Your task to perform on an android device: What's on my calendar tomorrow? Image 0: 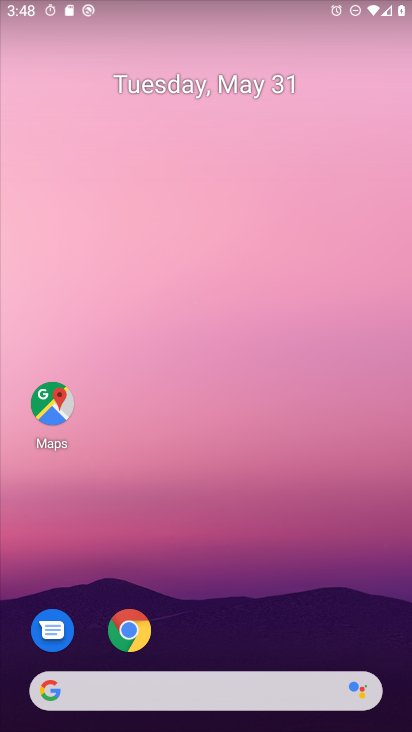
Step 0: drag from (283, 678) to (316, 1)
Your task to perform on an android device: What's on my calendar tomorrow? Image 1: 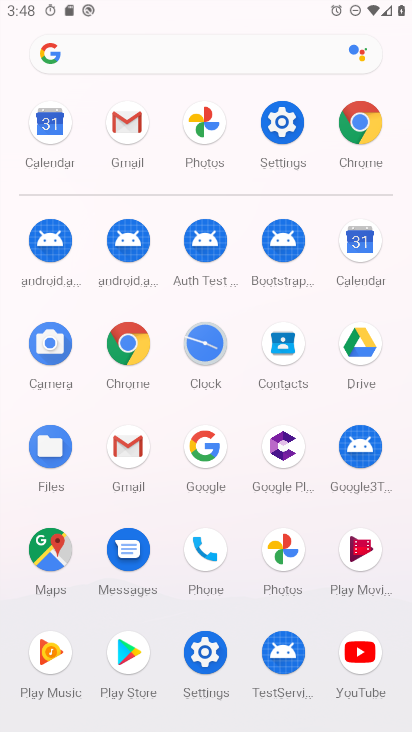
Step 1: click (363, 240)
Your task to perform on an android device: What's on my calendar tomorrow? Image 2: 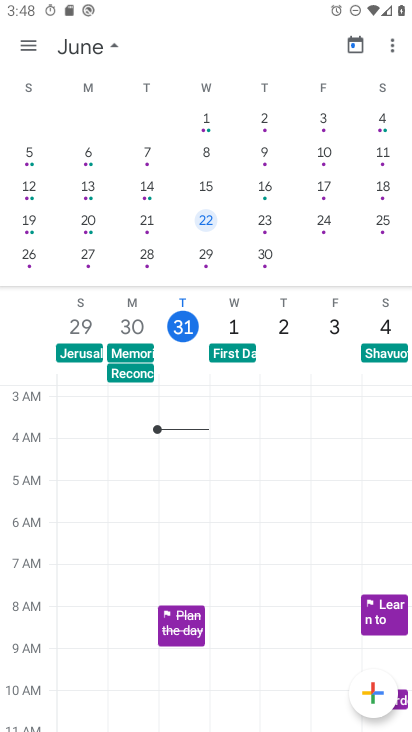
Step 2: click (99, 176)
Your task to perform on an android device: What's on my calendar tomorrow? Image 3: 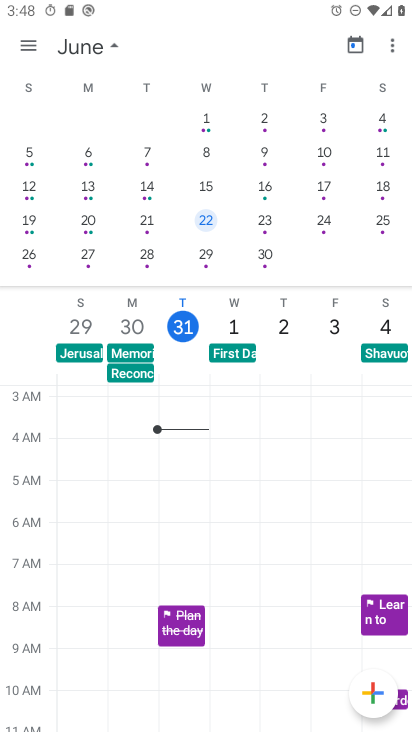
Step 3: click (203, 118)
Your task to perform on an android device: What's on my calendar tomorrow? Image 4: 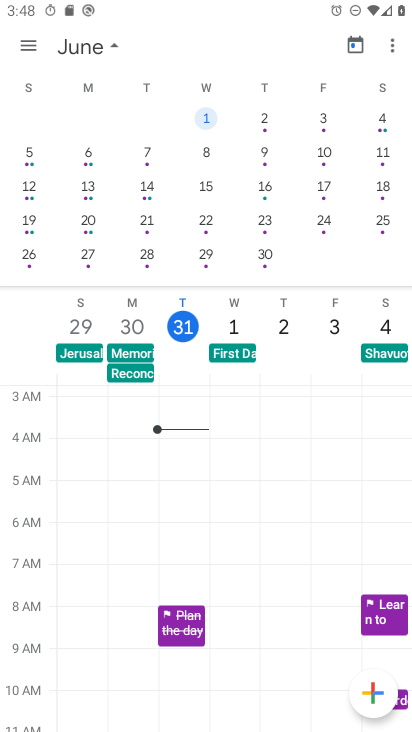
Step 4: task complete